Your task to perform on an android device: Go to sound settings Image 0: 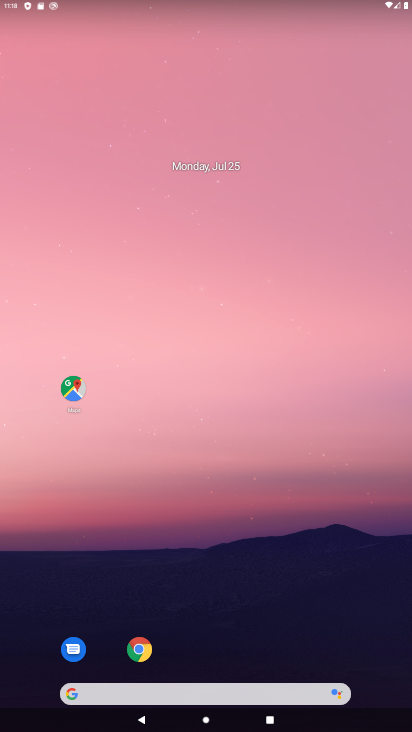
Step 0: drag from (212, 541) to (229, 83)
Your task to perform on an android device: Go to sound settings Image 1: 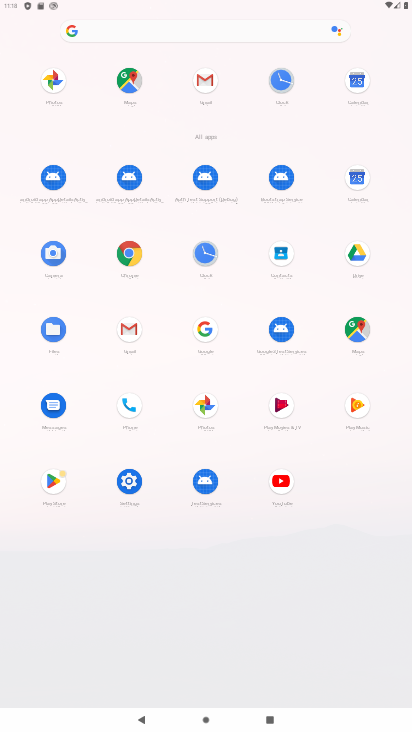
Step 1: click (130, 482)
Your task to perform on an android device: Go to sound settings Image 2: 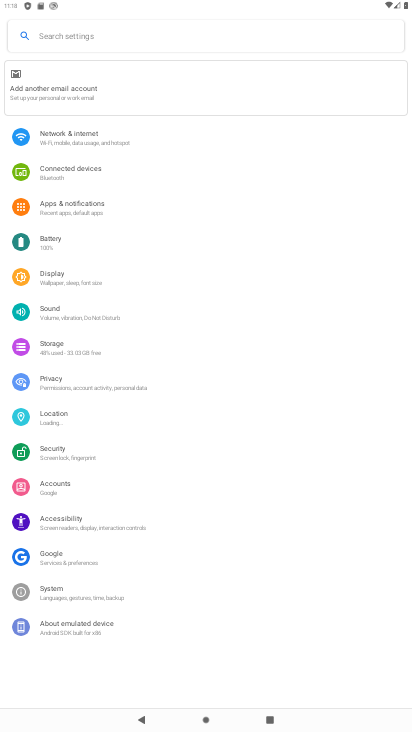
Step 2: click (58, 306)
Your task to perform on an android device: Go to sound settings Image 3: 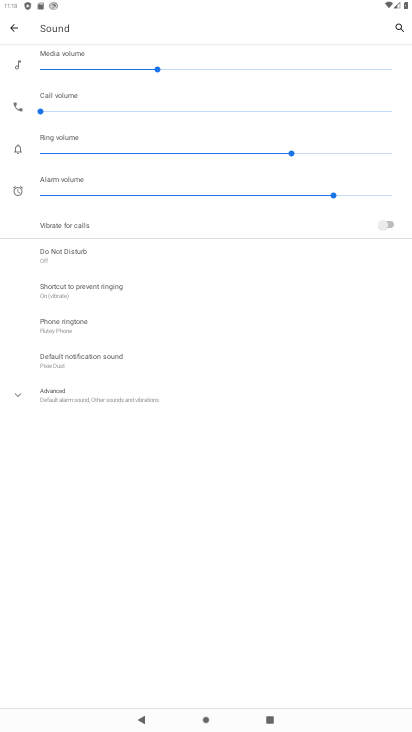
Step 3: task complete